Your task to perform on an android device: change notifications settings Image 0: 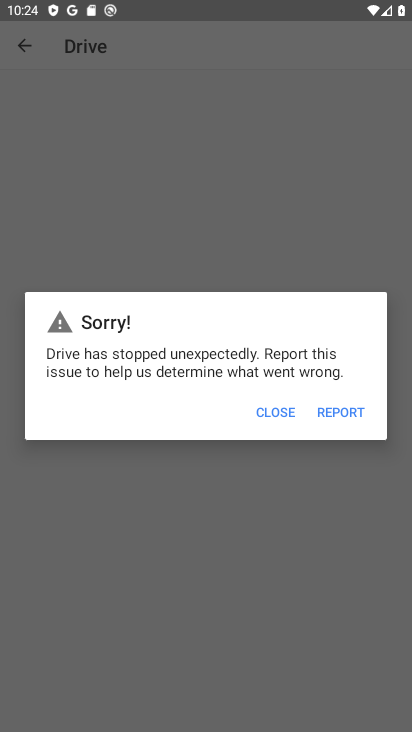
Step 0: press home button
Your task to perform on an android device: change notifications settings Image 1: 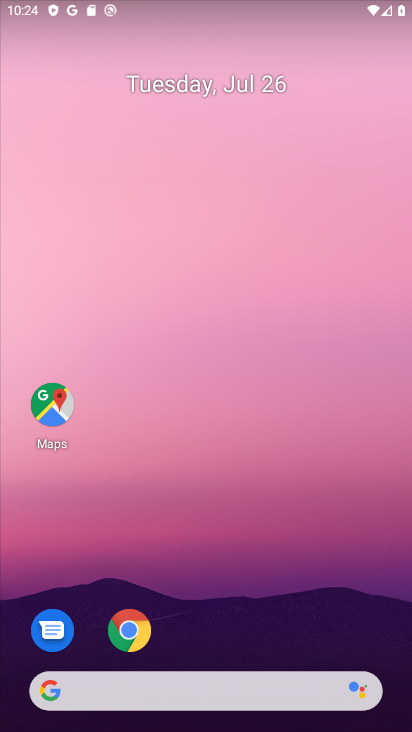
Step 1: drag from (236, 595) to (209, 152)
Your task to perform on an android device: change notifications settings Image 2: 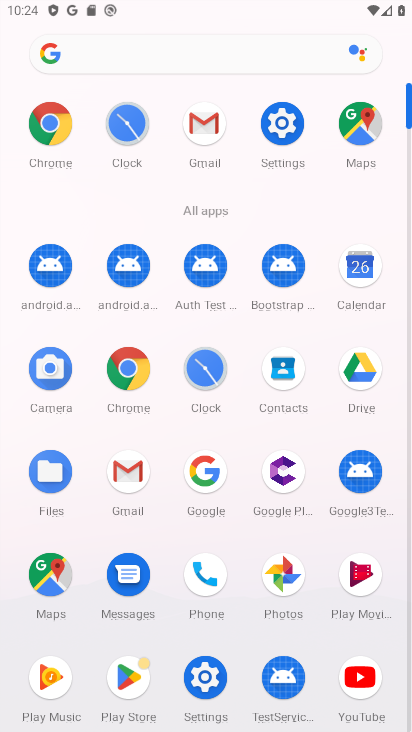
Step 2: click (208, 673)
Your task to perform on an android device: change notifications settings Image 3: 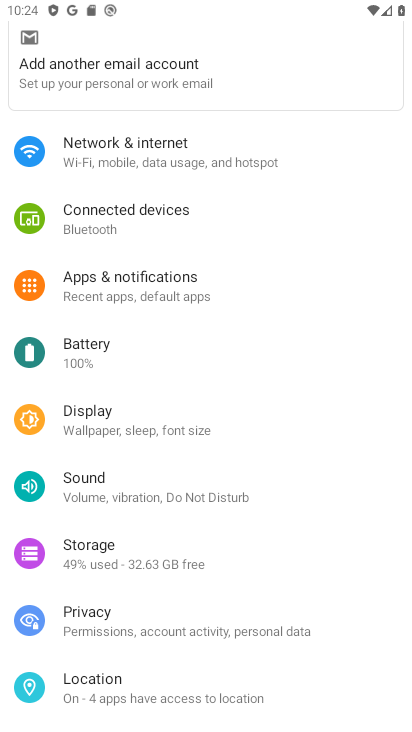
Step 3: click (155, 157)
Your task to perform on an android device: change notifications settings Image 4: 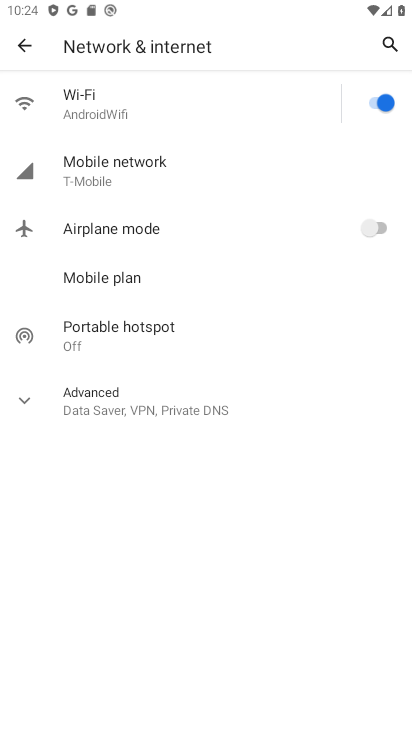
Step 4: task complete